Your task to perform on an android device: toggle pop-ups in chrome Image 0: 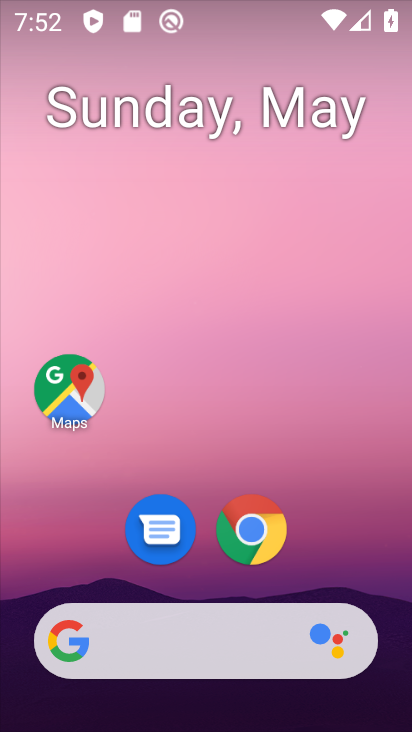
Step 0: drag from (385, 578) to (355, 33)
Your task to perform on an android device: toggle pop-ups in chrome Image 1: 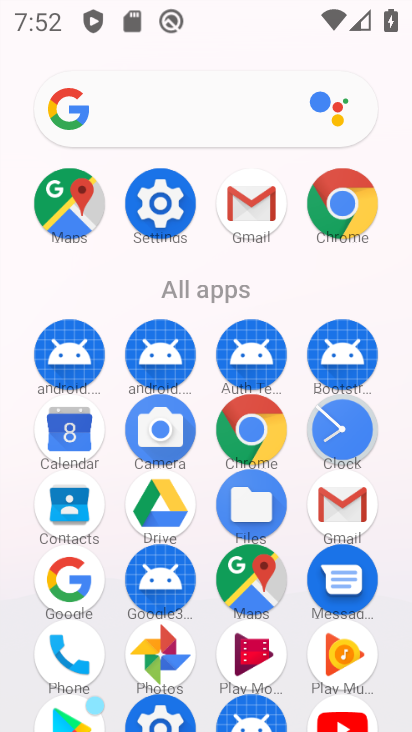
Step 1: click (350, 205)
Your task to perform on an android device: toggle pop-ups in chrome Image 2: 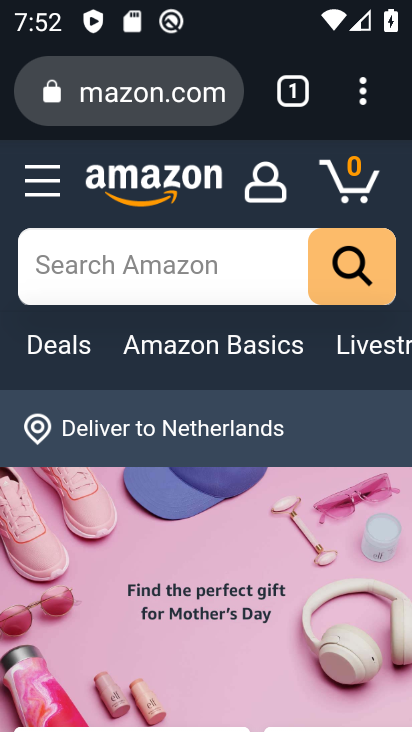
Step 2: drag from (363, 107) to (182, 561)
Your task to perform on an android device: toggle pop-ups in chrome Image 3: 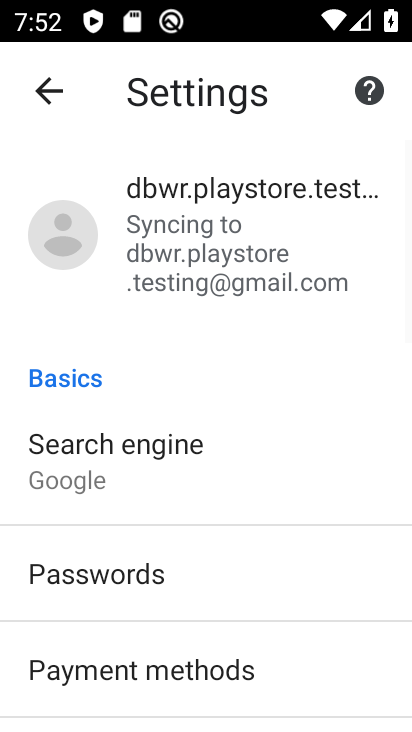
Step 3: drag from (294, 667) to (286, 286)
Your task to perform on an android device: toggle pop-ups in chrome Image 4: 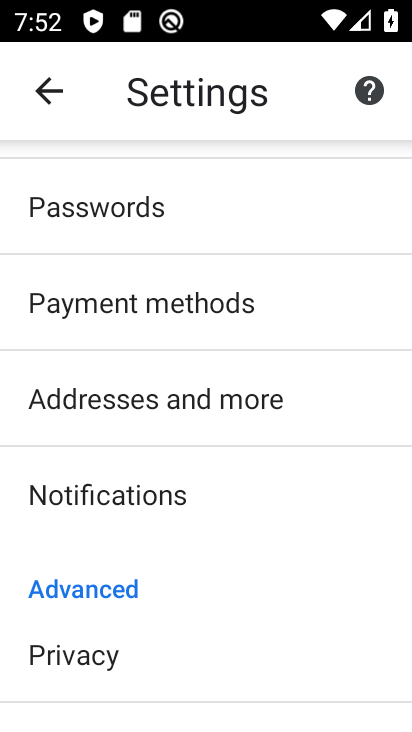
Step 4: drag from (295, 618) to (311, 296)
Your task to perform on an android device: toggle pop-ups in chrome Image 5: 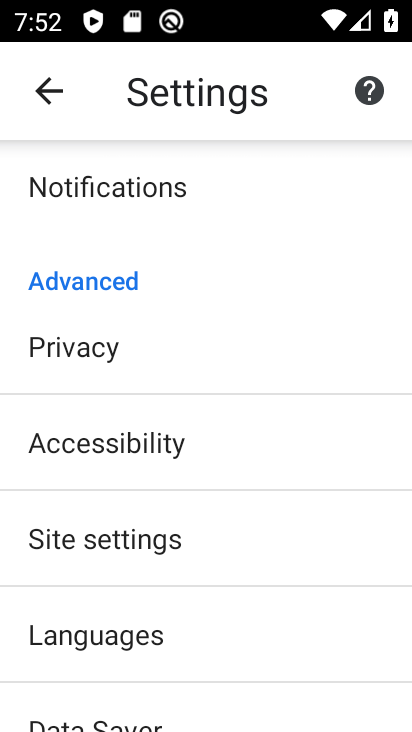
Step 5: drag from (282, 612) to (269, 325)
Your task to perform on an android device: toggle pop-ups in chrome Image 6: 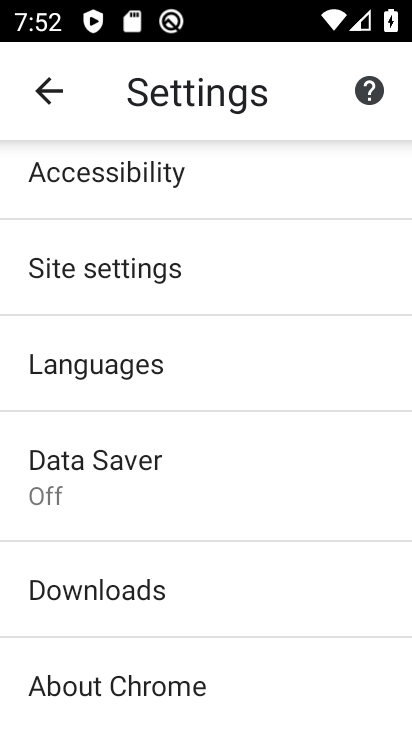
Step 6: click (170, 277)
Your task to perform on an android device: toggle pop-ups in chrome Image 7: 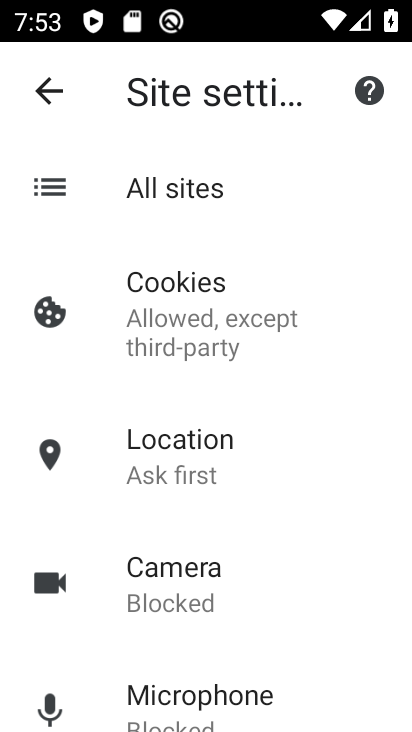
Step 7: drag from (274, 658) to (327, 300)
Your task to perform on an android device: toggle pop-ups in chrome Image 8: 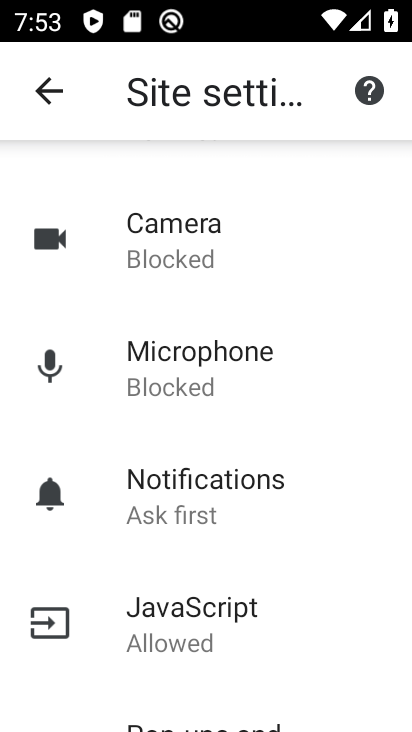
Step 8: drag from (330, 578) to (326, 270)
Your task to perform on an android device: toggle pop-ups in chrome Image 9: 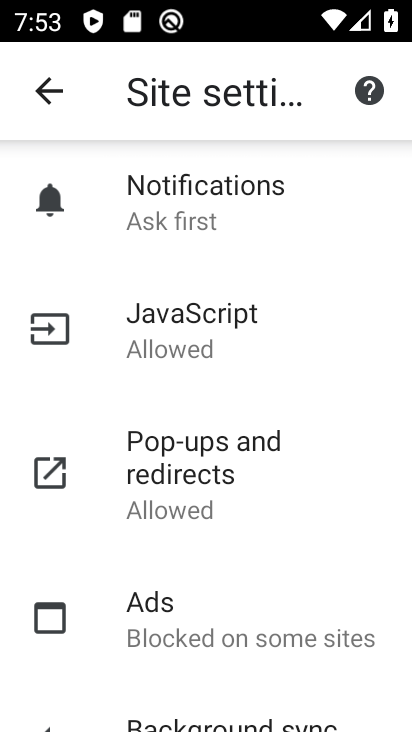
Step 9: click (270, 445)
Your task to perform on an android device: toggle pop-ups in chrome Image 10: 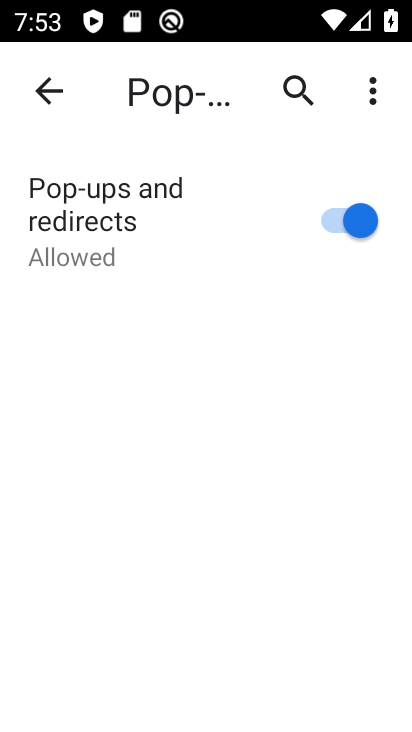
Step 10: click (347, 214)
Your task to perform on an android device: toggle pop-ups in chrome Image 11: 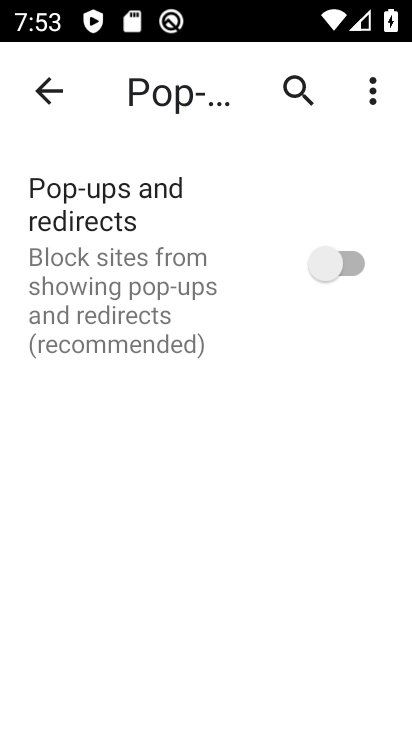
Step 11: task complete